Your task to perform on an android device: all mails in gmail Image 0: 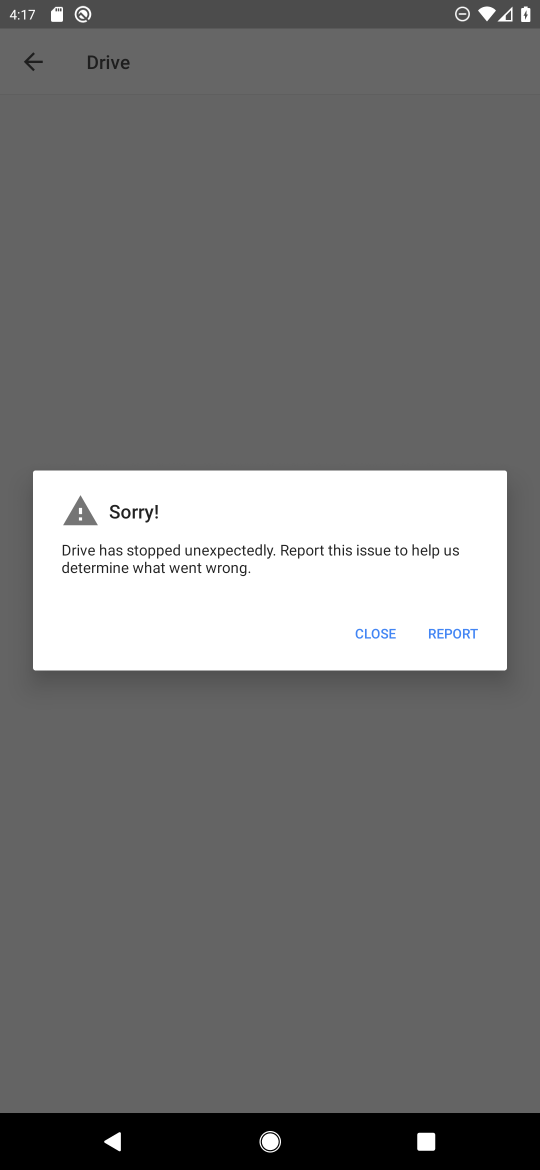
Step 0: press home button
Your task to perform on an android device: all mails in gmail Image 1: 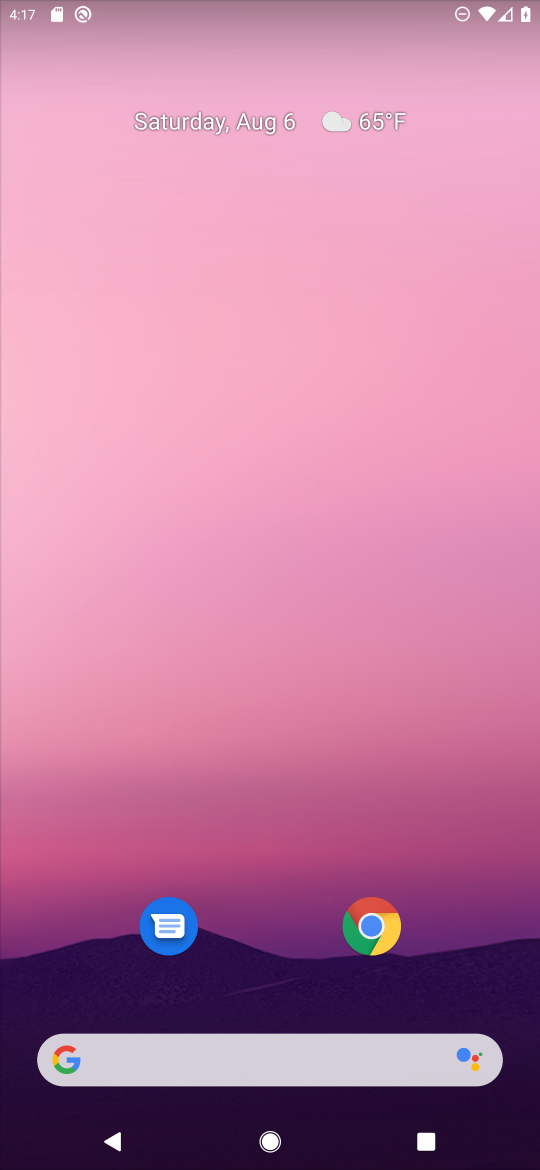
Step 1: drag from (277, 914) to (255, 342)
Your task to perform on an android device: all mails in gmail Image 2: 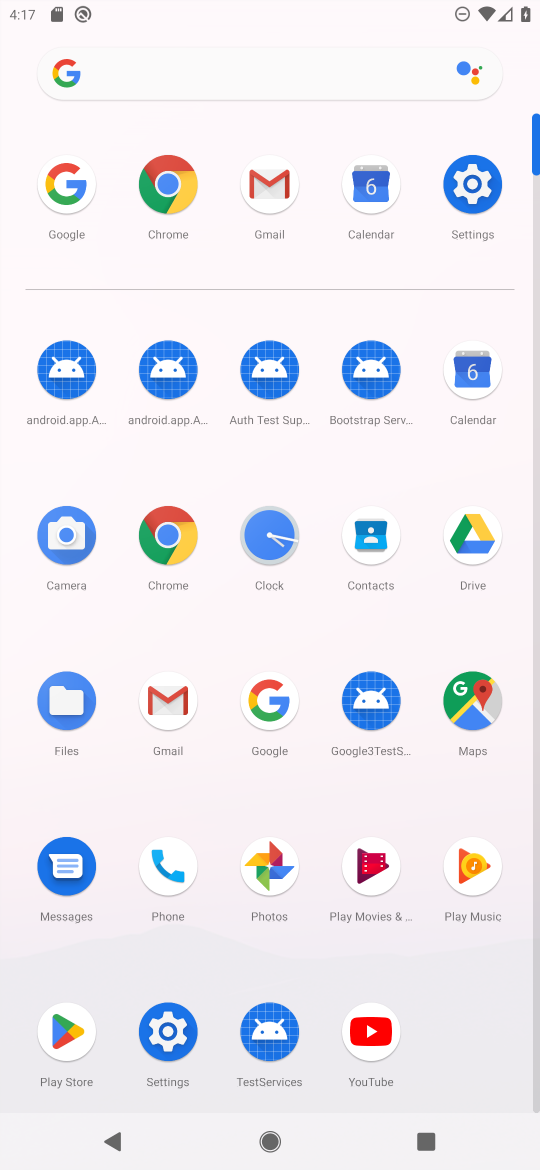
Step 2: click (252, 207)
Your task to perform on an android device: all mails in gmail Image 3: 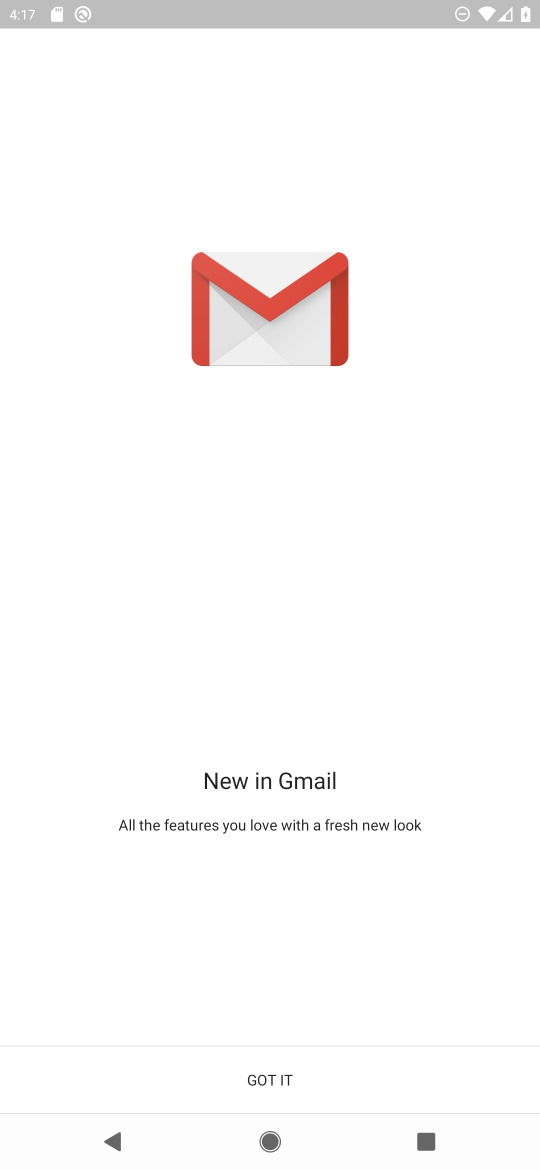
Step 3: click (353, 1084)
Your task to perform on an android device: all mails in gmail Image 4: 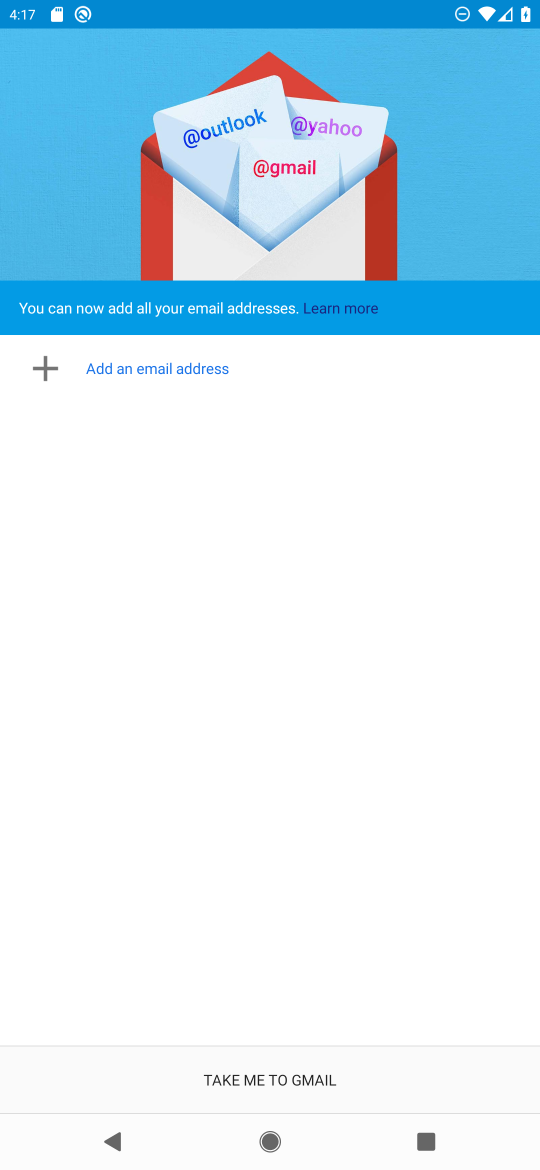
Step 4: click (353, 1084)
Your task to perform on an android device: all mails in gmail Image 5: 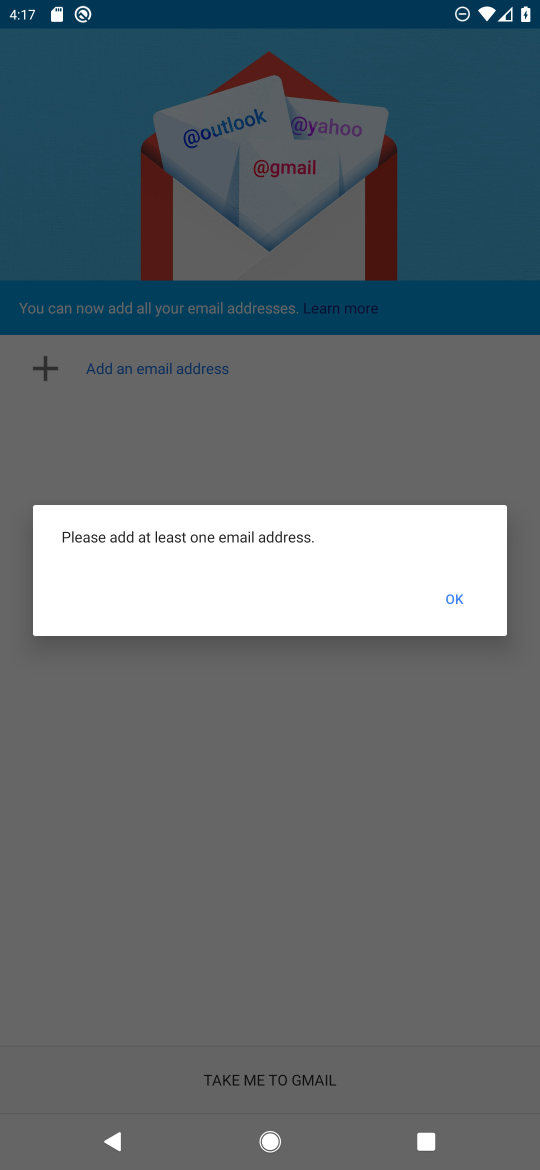
Step 5: click (439, 618)
Your task to perform on an android device: all mails in gmail Image 6: 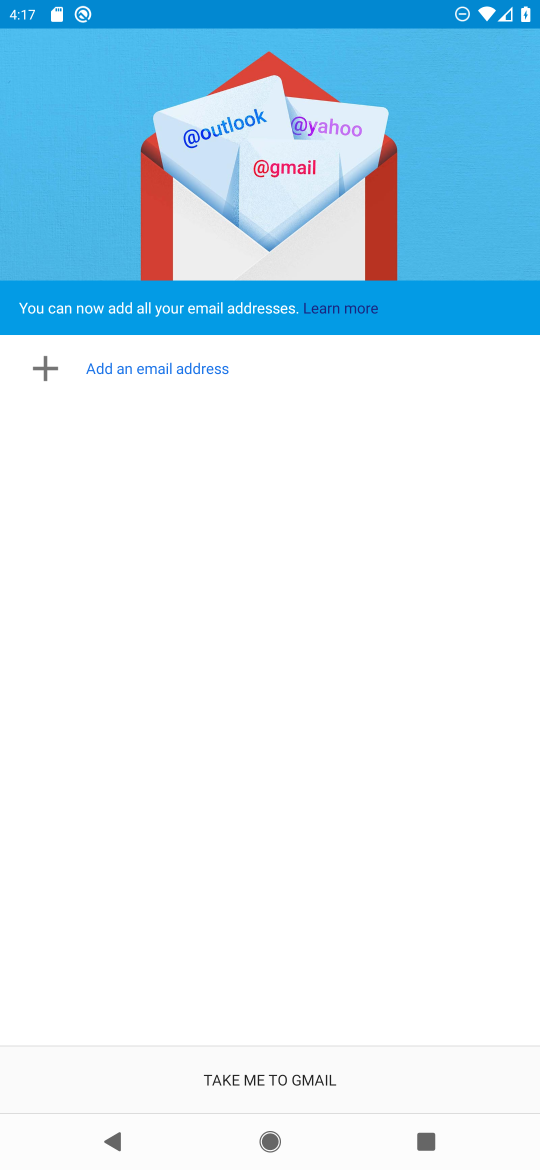
Step 6: task complete